Your task to perform on an android device: delete location history Image 0: 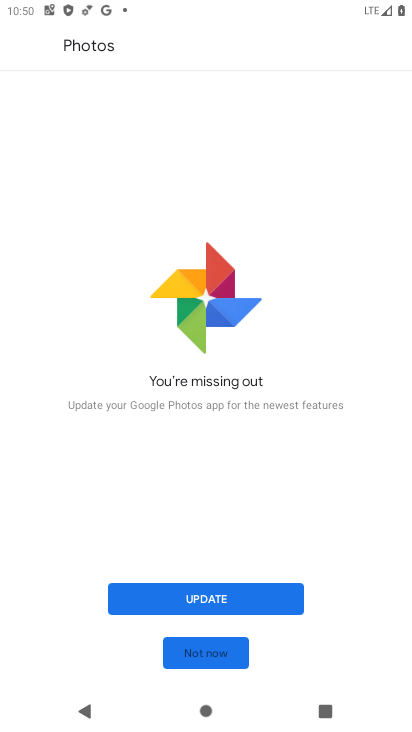
Step 0: press home button
Your task to perform on an android device: delete location history Image 1: 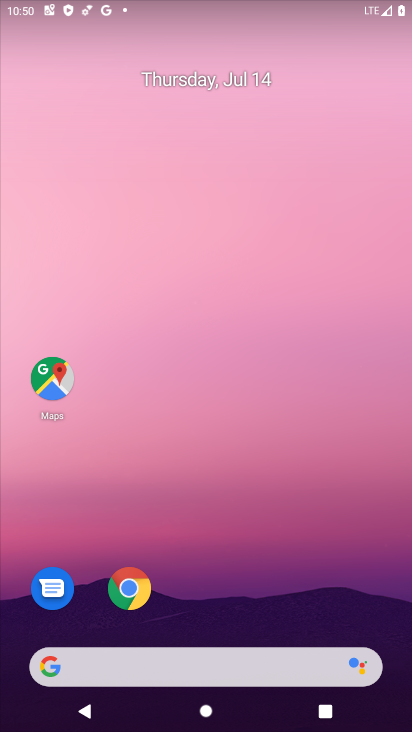
Step 1: click (58, 382)
Your task to perform on an android device: delete location history Image 2: 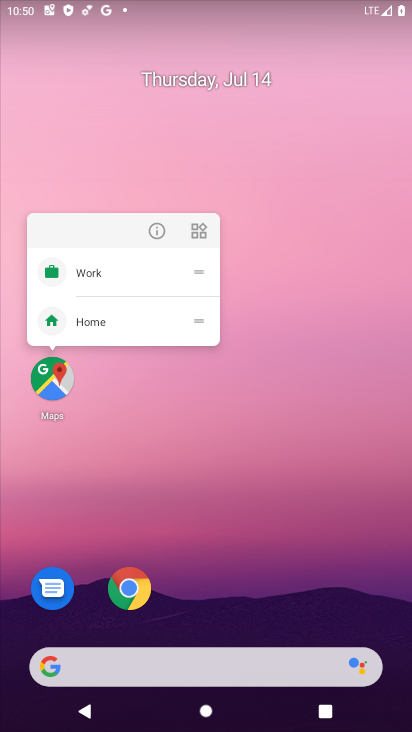
Step 2: click (33, 387)
Your task to perform on an android device: delete location history Image 3: 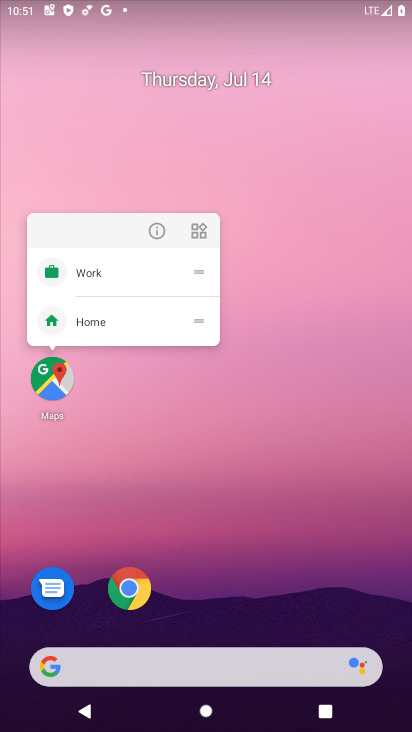
Step 3: click (54, 389)
Your task to perform on an android device: delete location history Image 4: 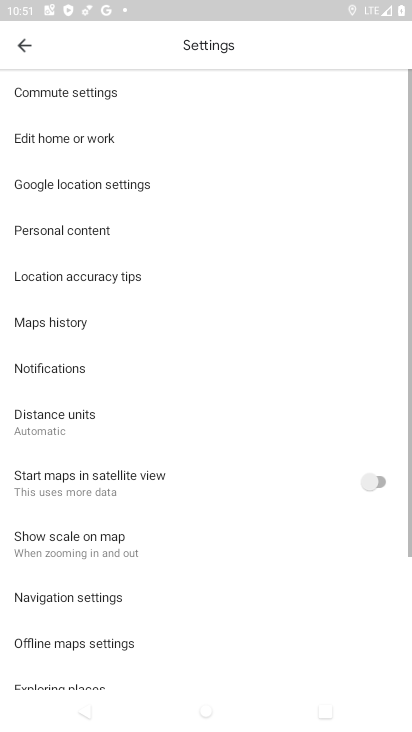
Step 4: click (30, 41)
Your task to perform on an android device: delete location history Image 5: 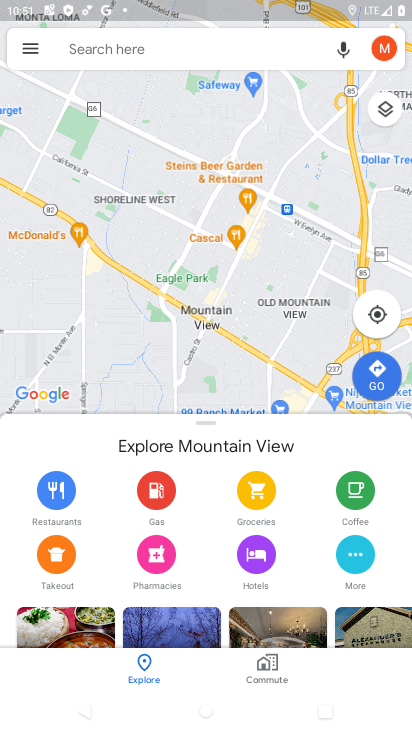
Step 5: click (32, 53)
Your task to perform on an android device: delete location history Image 6: 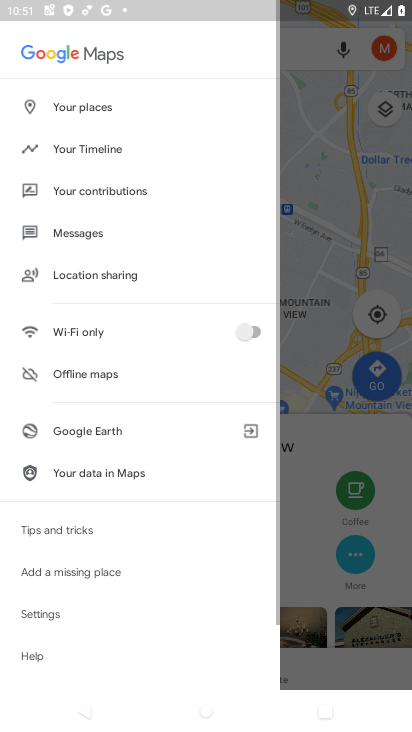
Step 6: click (96, 155)
Your task to perform on an android device: delete location history Image 7: 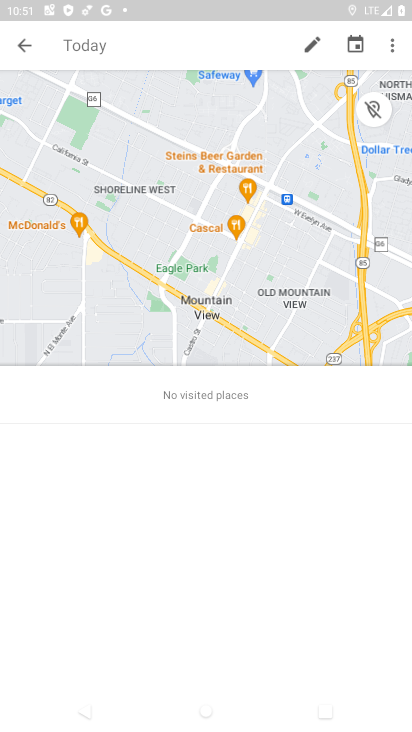
Step 7: click (393, 48)
Your task to perform on an android device: delete location history Image 8: 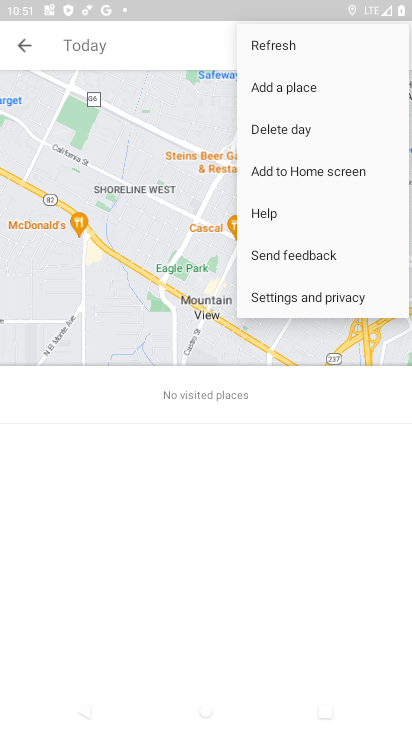
Step 8: click (295, 301)
Your task to perform on an android device: delete location history Image 9: 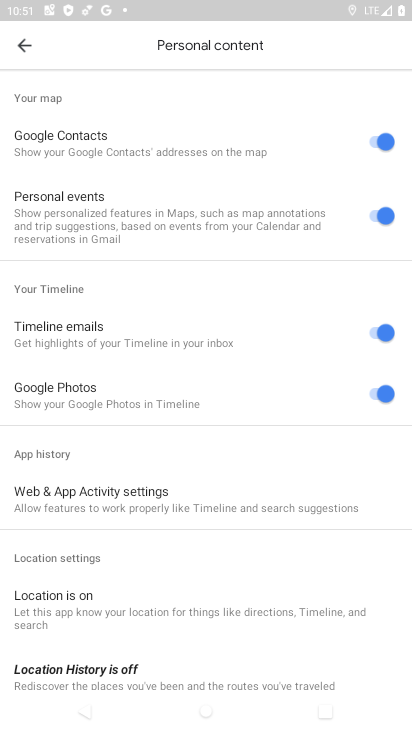
Step 9: drag from (171, 572) to (312, 135)
Your task to perform on an android device: delete location history Image 10: 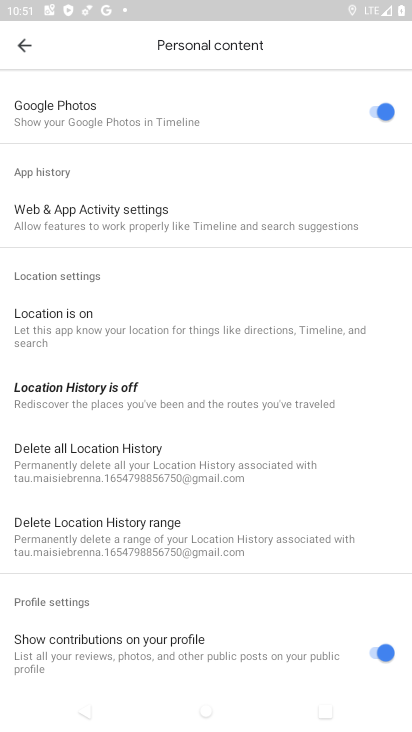
Step 10: click (133, 460)
Your task to perform on an android device: delete location history Image 11: 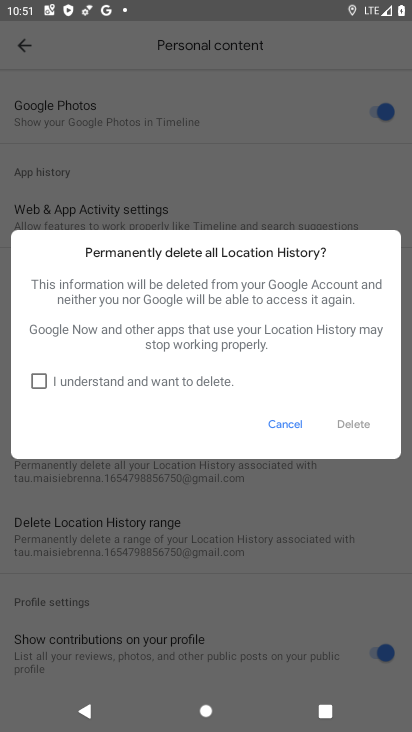
Step 11: click (38, 386)
Your task to perform on an android device: delete location history Image 12: 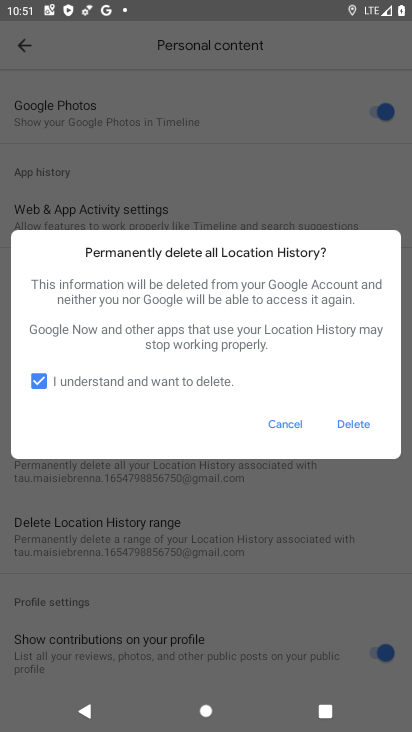
Step 12: click (359, 425)
Your task to perform on an android device: delete location history Image 13: 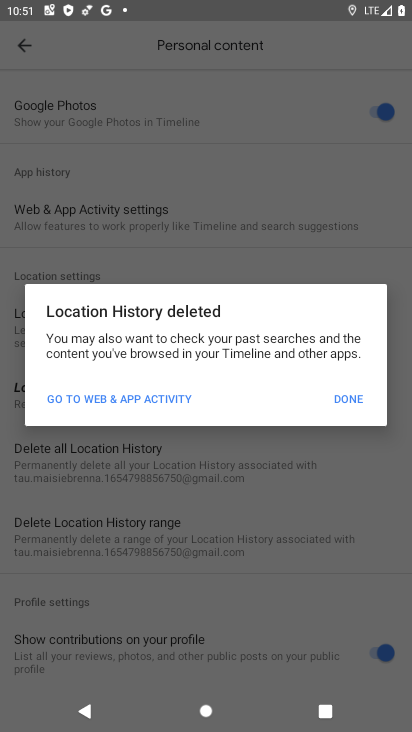
Step 13: click (357, 396)
Your task to perform on an android device: delete location history Image 14: 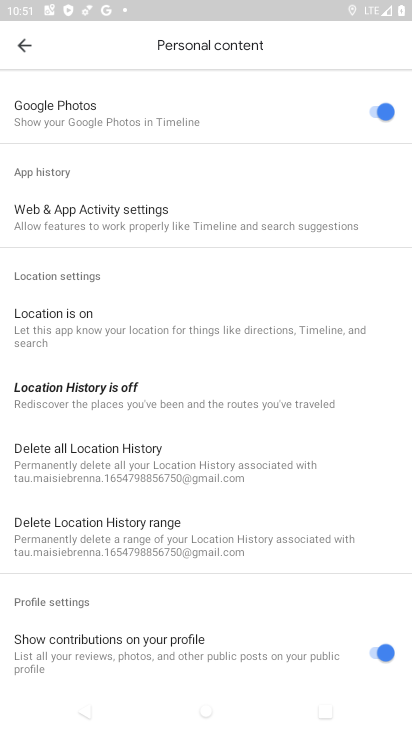
Step 14: task complete